Your task to perform on an android device: Open Youtube and go to the subscriptions tab Image 0: 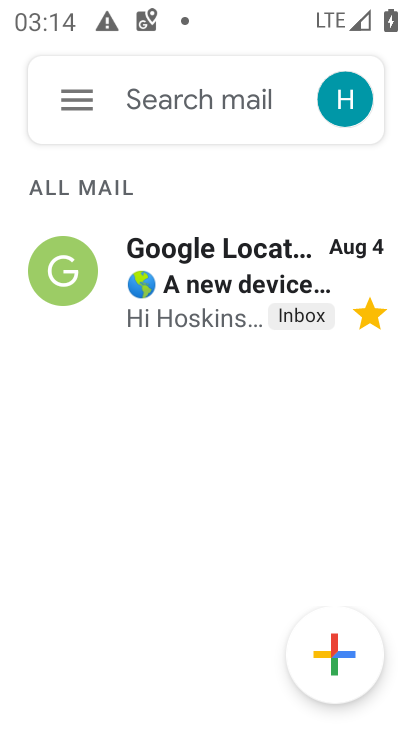
Step 0: press home button
Your task to perform on an android device: Open Youtube and go to the subscriptions tab Image 1: 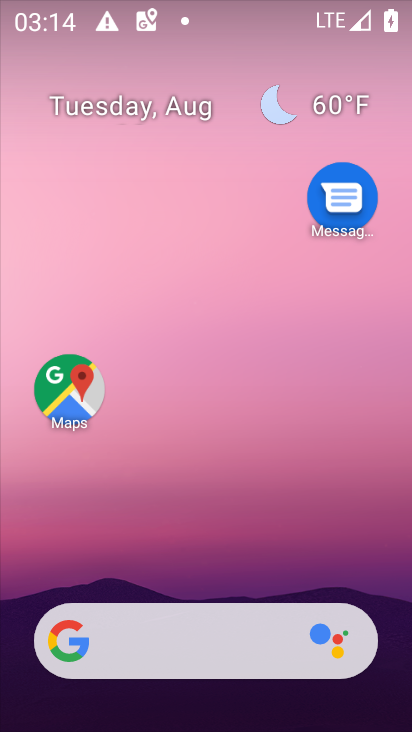
Step 1: drag from (227, 521) to (224, 71)
Your task to perform on an android device: Open Youtube and go to the subscriptions tab Image 2: 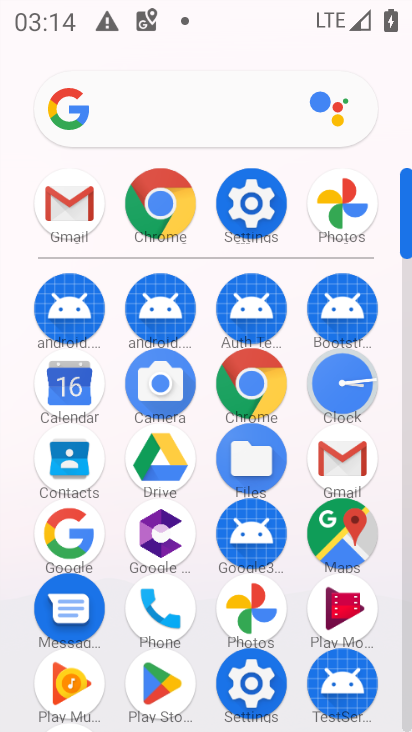
Step 2: click (403, 723)
Your task to perform on an android device: Open Youtube and go to the subscriptions tab Image 3: 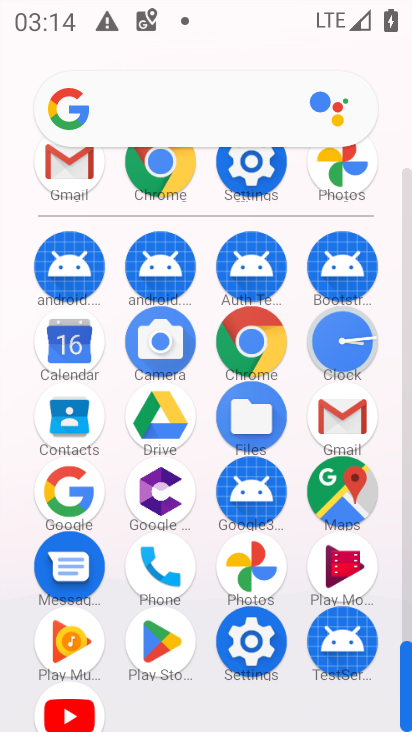
Step 3: click (81, 713)
Your task to perform on an android device: Open Youtube and go to the subscriptions tab Image 4: 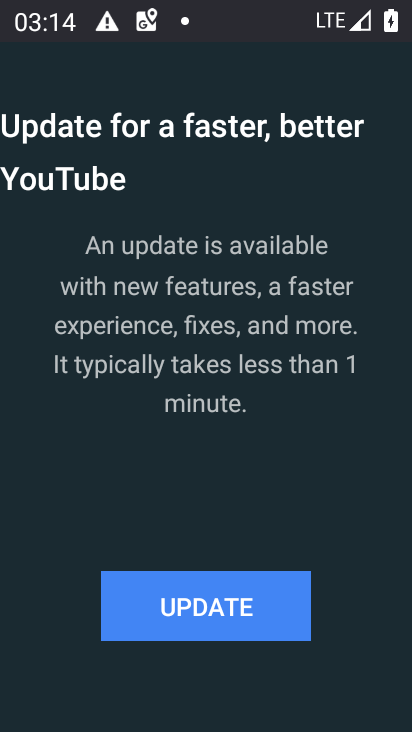
Step 4: click (230, 584)
Your task to perform on an android device: Open Youtube and go to the subscriptions tab Image 5: 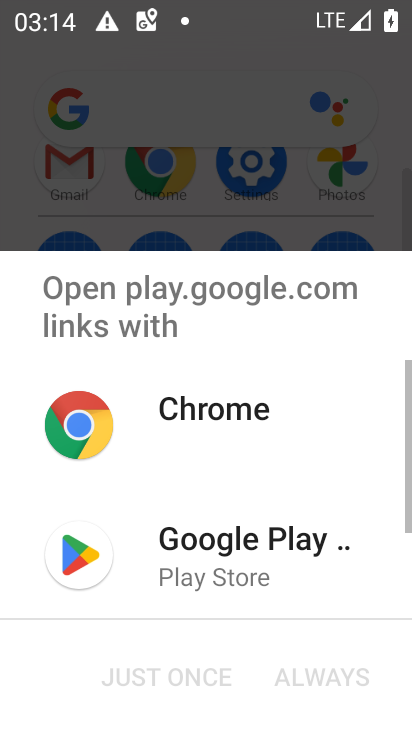
Step 5: click (230, 584)
Your task to perform on an android device: Open Youtube and go to the subscriptions tab Image 6: 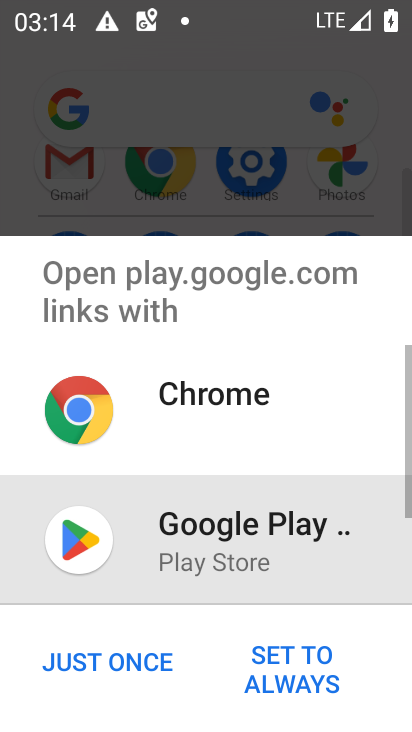
Step 6: click (107, 680)
Your task to perform on an android device: Open Youtube and go to the subscriptions tab Image 7: 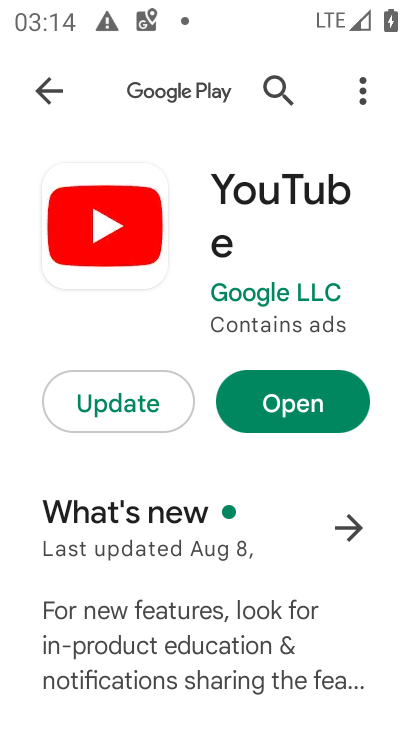
Step 7: click (146, 411)
Your task to perform on an android device: Open Youtube and go to the subscriptions tab Image 8: 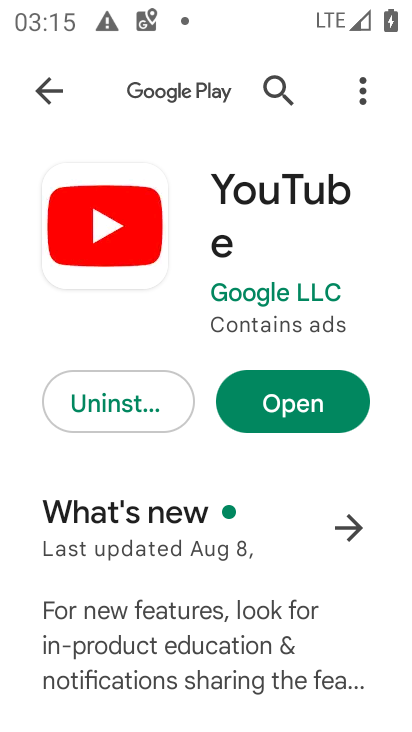
Step 8: click (276, 426)
Your task to perform on an android device: Open Youtube and go to the subscriptions tab Image 9: 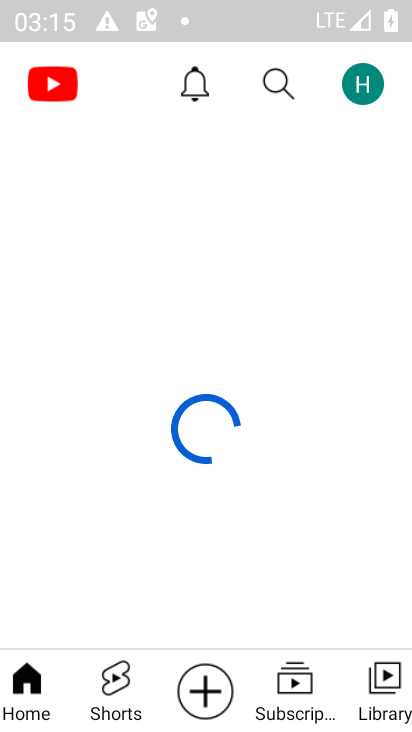
Step 9: click (272, 707)
Your task to perform on an android device: Open Youtube and go to the subscriptions tab Image 10: 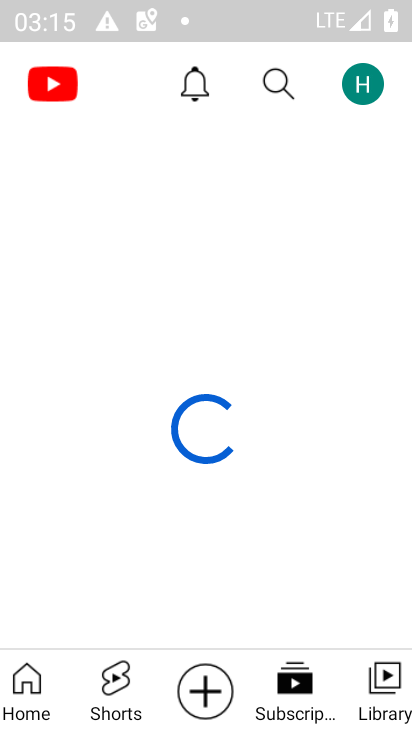
Step 10: task complete